Your task to perform on an android device: Open Youtube and go to the subscriptions tab Image 0: 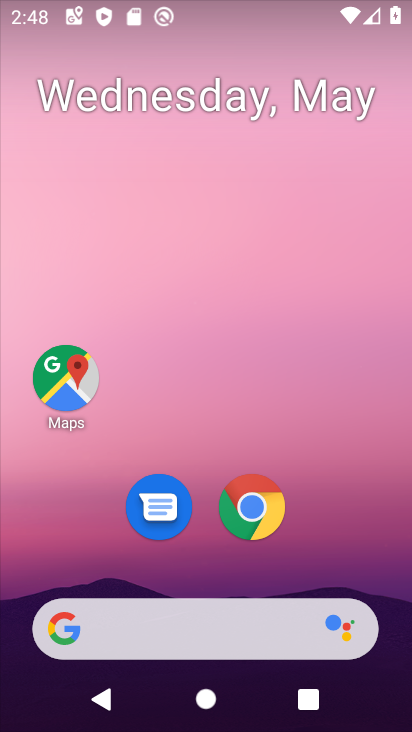
Step 0: drag from (281, 528) to (265, 66)
Your task to perform on an android device: Open Youtube and go to the subscriptions tab Image 1: 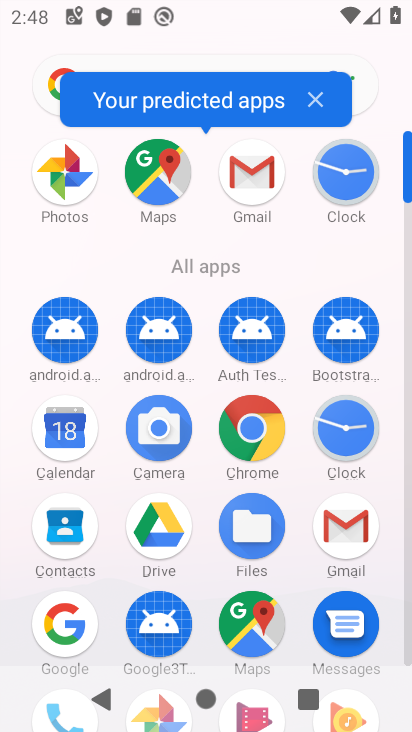
Step 1: drag from (171, 598) to (244, 122)
Your task to perform on an android device: Open Youtube and go to the subscriptions tab Image 2: 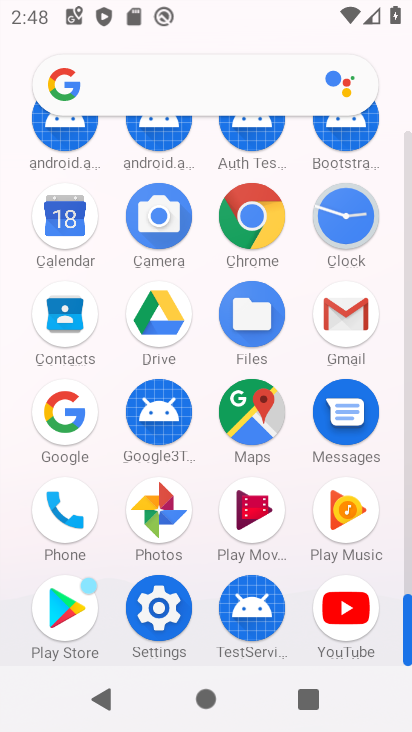
Step 2: click (348, 610)
Your task to perform on an android device: Open Youtube and go to the subscriptions tab Image 3: 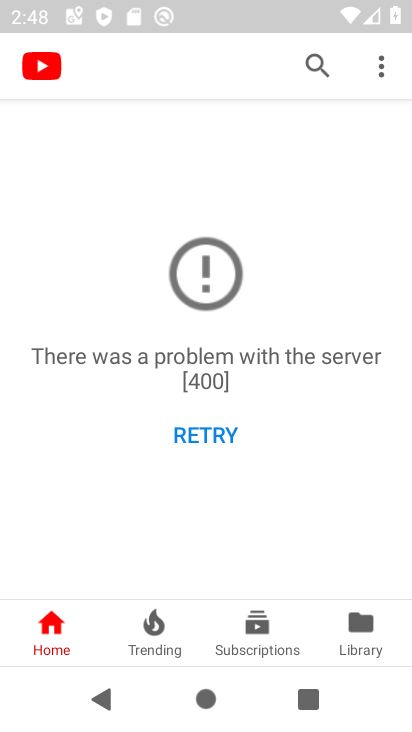
Step 3: click (250, 635)
Your task to perform on an android device: Open Youtube and go to the subscriptions tab Image 4: 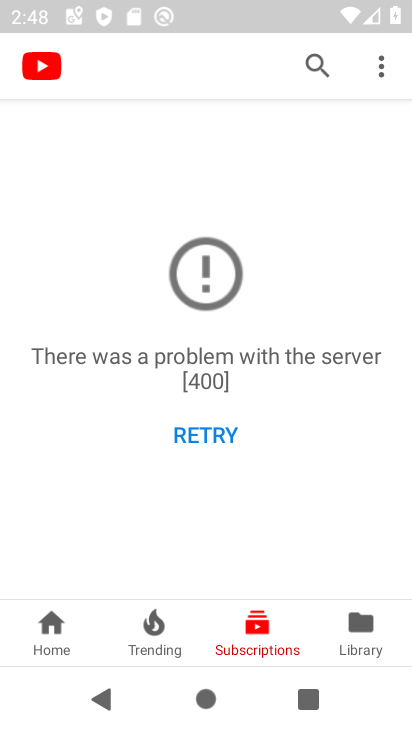
Step 4: task complete